Your task to perform on an android device: Open settings Image 0: 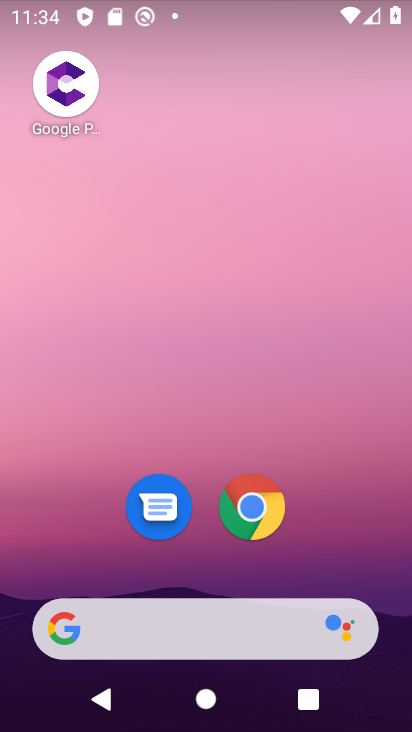
Step 0: drag from (311, 557) to (315, 79)
Your task to perform on an android device: Open settings Image 1: 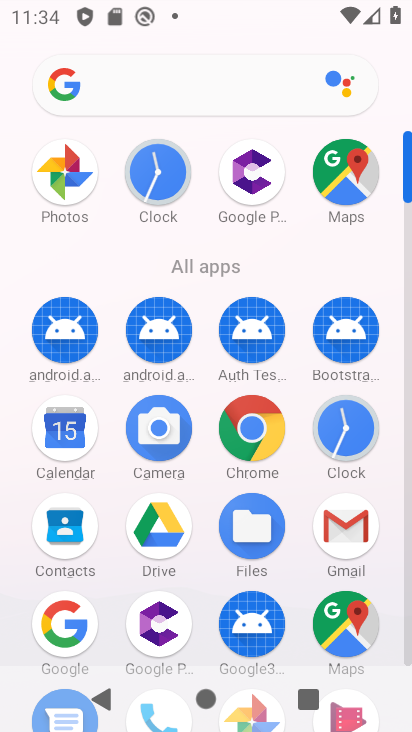
Step 1: drag from (294, 674) to (334, 228)
Your task to perform on an android device: Open settings Image 2: 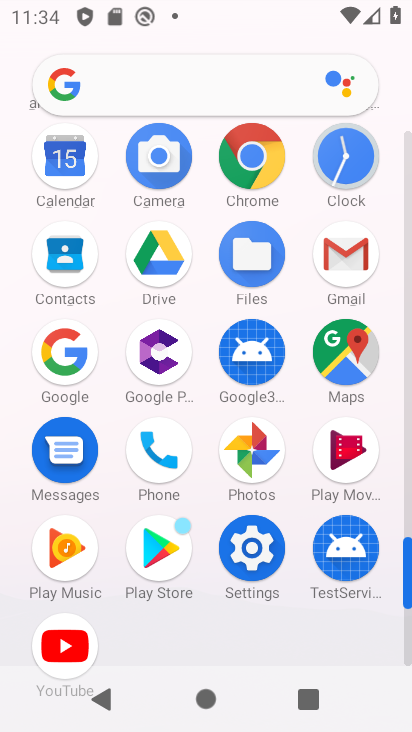
Step 2: click (265, 561)
Your task to perform on an android device: Open settings Image 3: 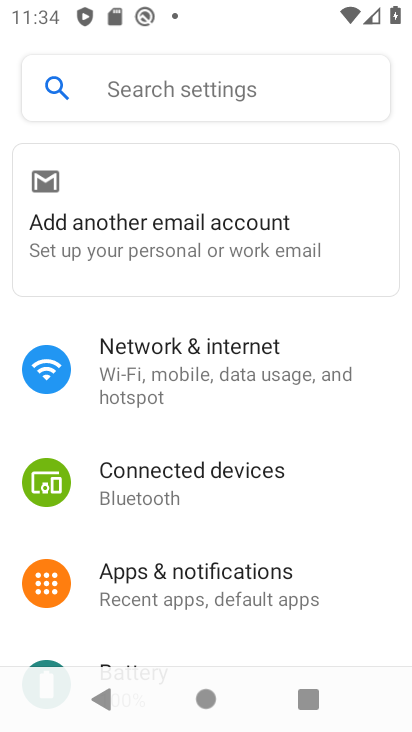
Step 3: task complete